Your task to perform on an android device: Open Youtube and go to "Your channel" Image 0: 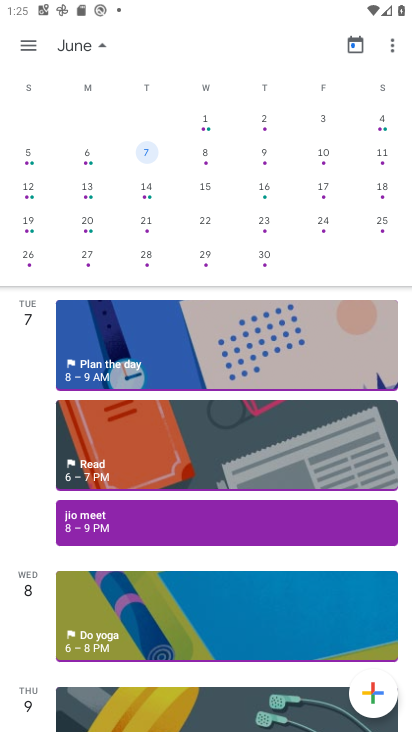
Step 0: press home button
Your task to perform on an android device: Open Youtube and go to "Your channel" Image 1: 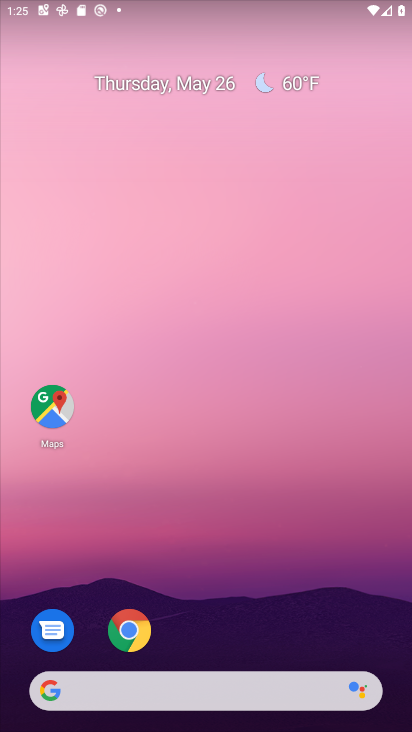
Step 1: drag from (286, 559) to (267, 77)
Your task to perform on an android device: Open Youtube and go to "Your channel" Image 2: 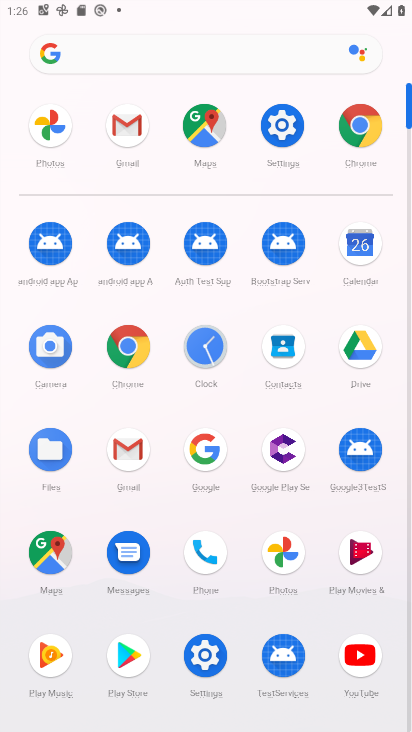
Step 2: click (349, 650)
Your task to perform on an android device: Open Youtube and go to "Your channel" Image 3: 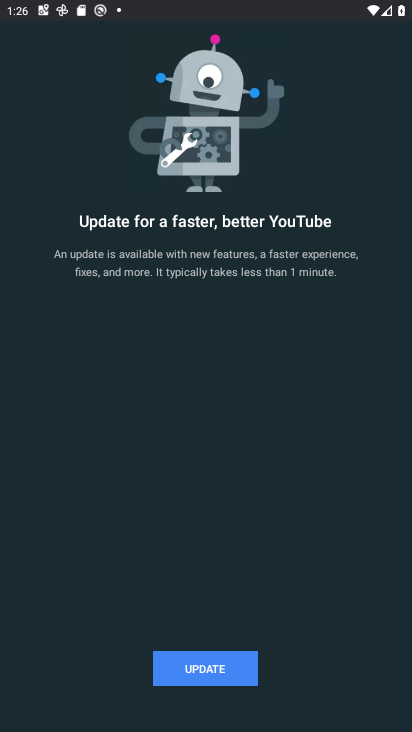
Step 3: click (220, 664)
Your task to perform on an android device: Open Youtube and go to "Your channel" Image 4: 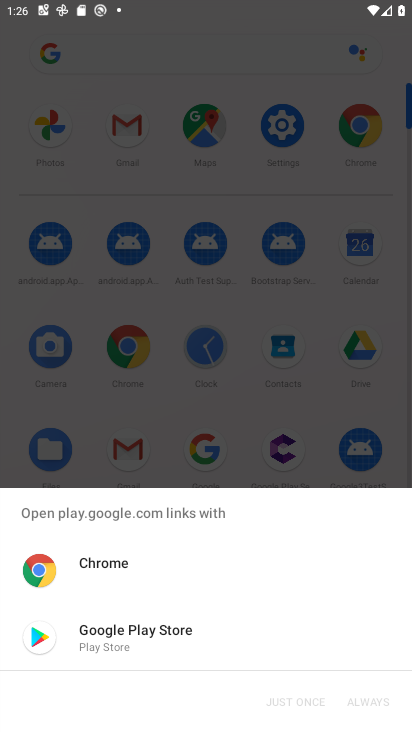
Step 4: click (145, 635)
Your task to perform on an android device: Open Youtube and go to "Your channel" Image 5: 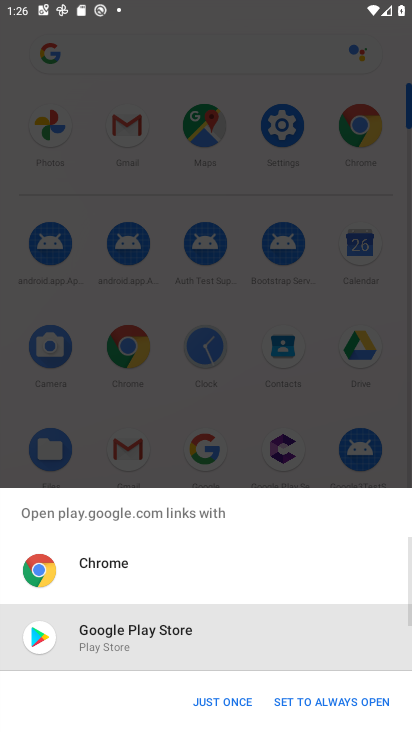
Step 5: click (220, 708)
Your task to perform on an android device: Open Youtube and go to "Your channel" Image 6: 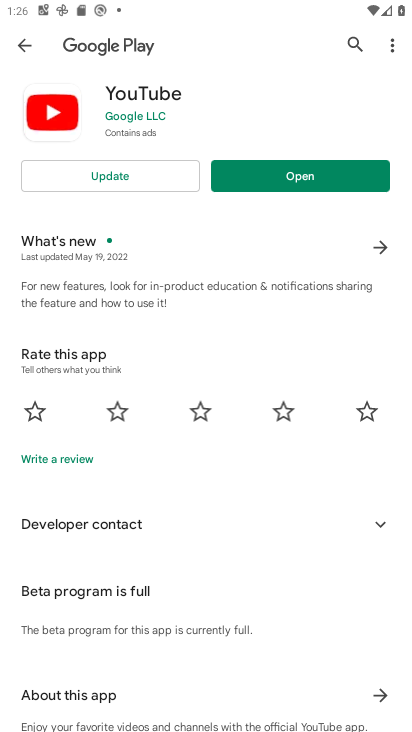
Step 6: click (116, 178)
Your task to perform on an android device: Open Youtube and go to "Your channel" Image 7: 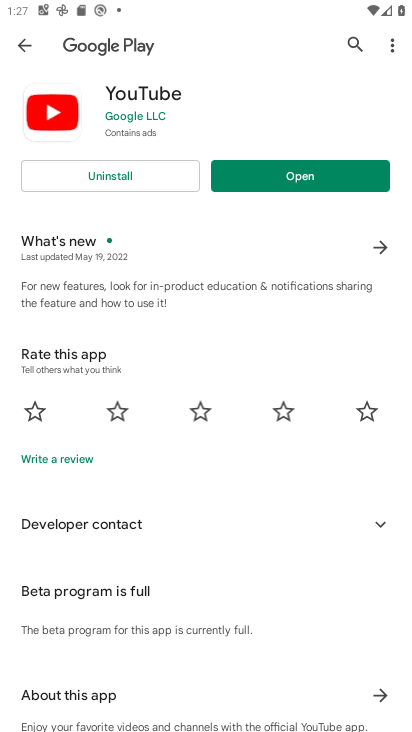
Step 7: click (285, 181)
Your task to perform on an android device: Open Youtube and go to "Your channel" Image 8: 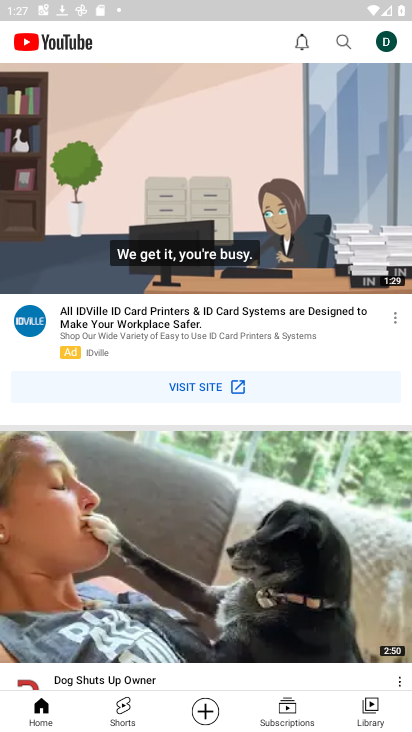
Step 8: click (374, 45)
Your task to perform on an android device: Open Youtube and go to "Your channel" Image 9: 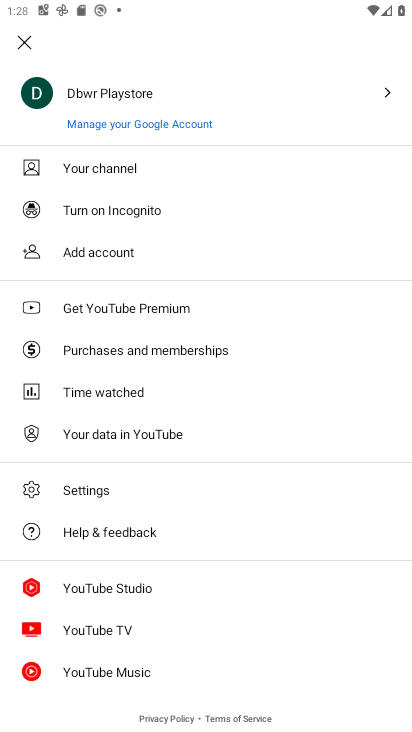
Step 9: click (76, 176)
Your task to perform on an android device: Open Youtube and go to "Your channel" Image 10: 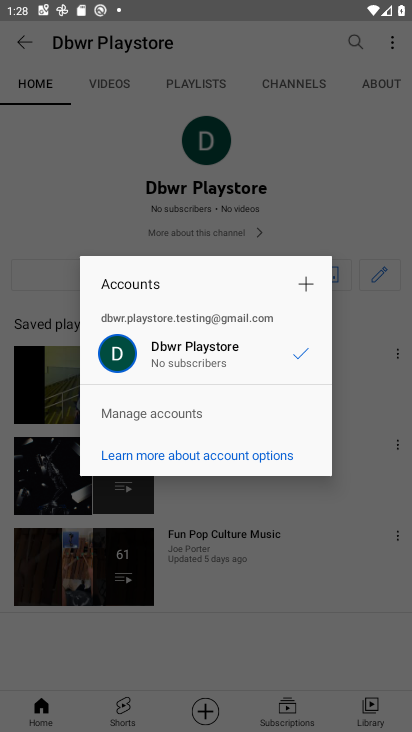
Step 10: click (366, 379)
Your task to perform on an android device: Open Youtube and go to "Your channel" Image 11: 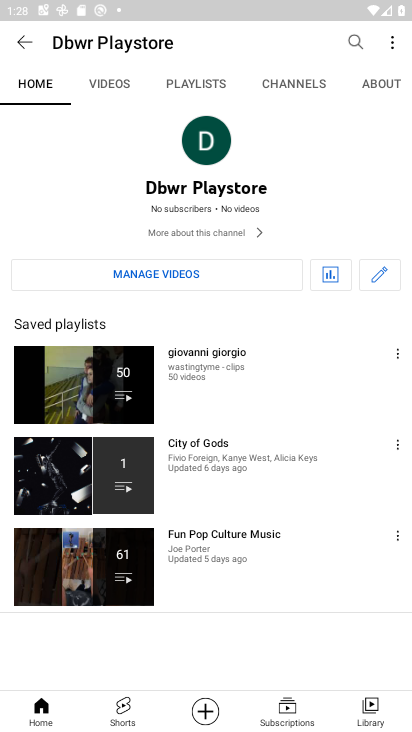
Step 11: task complete